Your task to perform on an android device: Go to privacy settings Image 0: 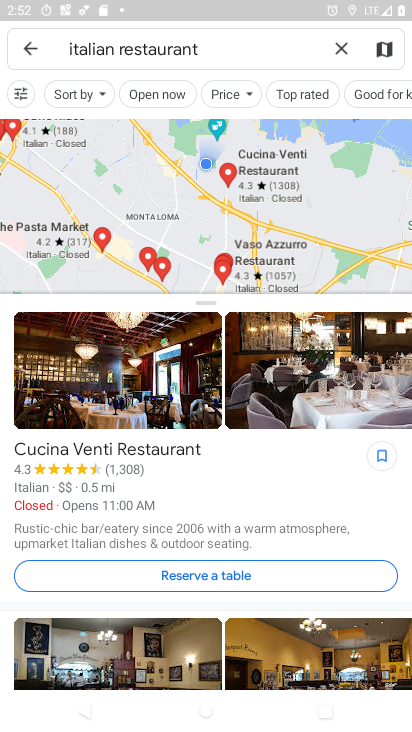
Step 0: press home button
Your task to perform on an android device: Go to privacy settings Image 1: 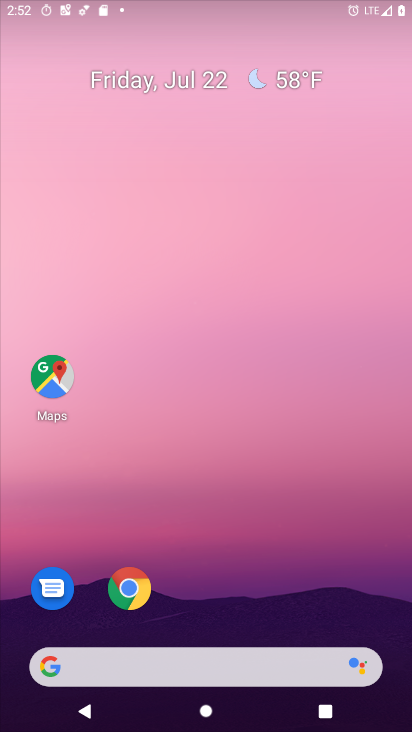
Step 1: drag from (222, 565) to (249, 44)
Your task to perform on an android device: Go to privacy settings Image 2: 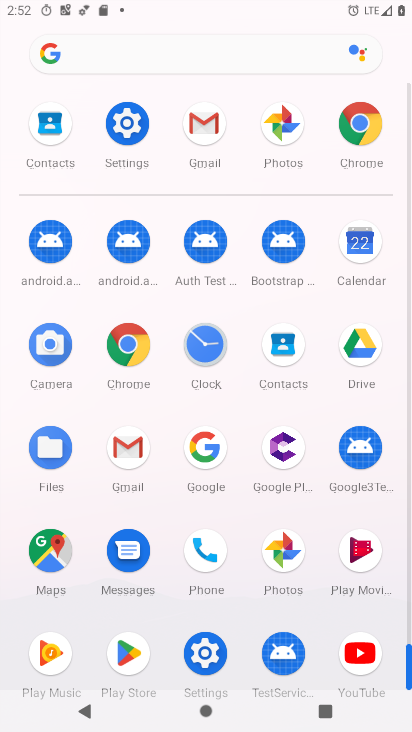
Step 2: click (123, 355)
Your task to perform on an android device: Go to privacy settings Image 3: 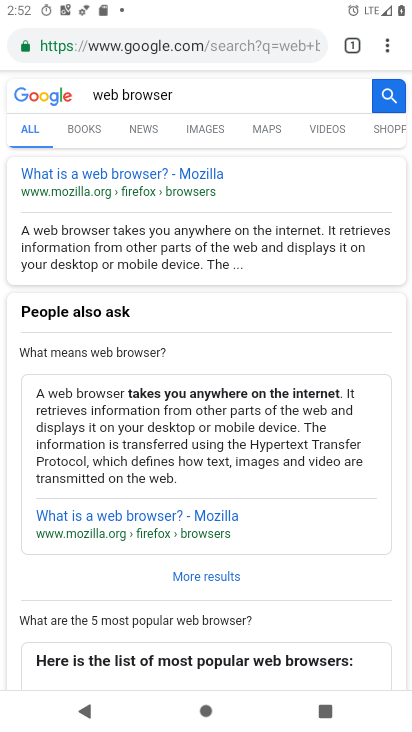
Step 3: press home button
Your task to perform on an android device: Go to privacy settings Image 4: 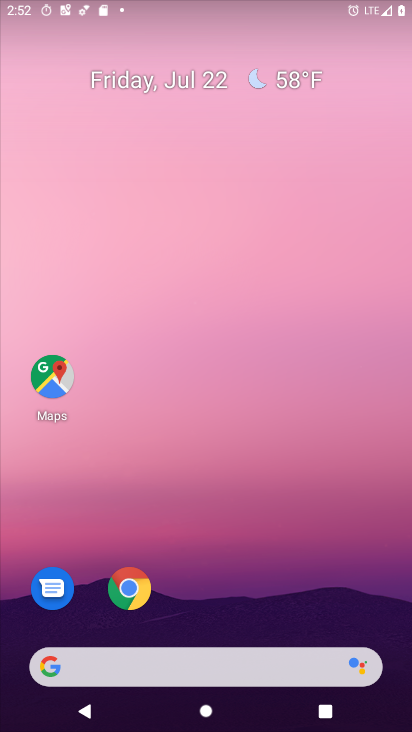
Step 4: drag from (284, 604) to (299, 139)
Your task to perform on an android device: Go to privacy settings Image 5: 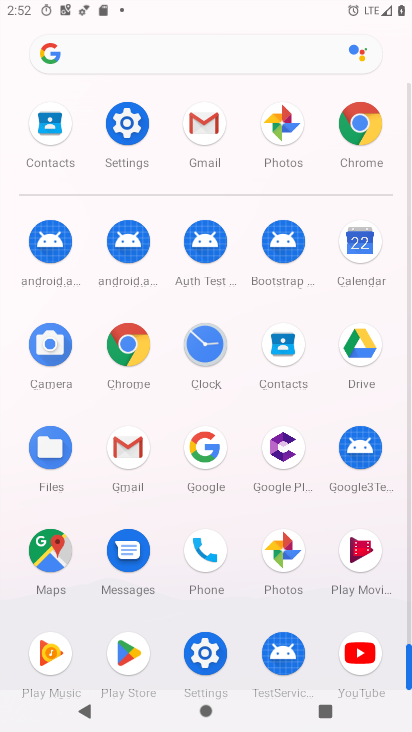
Step 5: click (207, 647)
Your task to perform on an android device: Go to privacy settings Image 6: 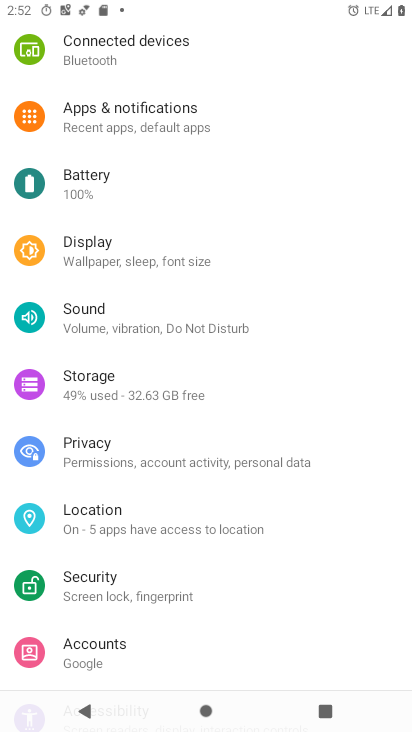
Step 6: click (78, 441)
Your task to perform on an android device: Go to privacy settings Image 7: 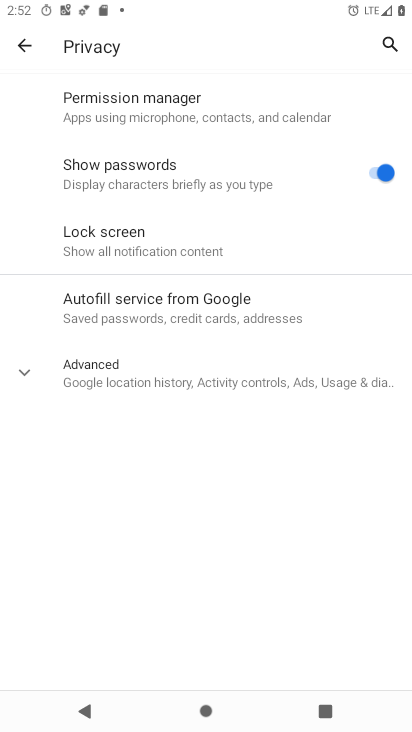
Step 7: task complete